Your task to perform on an android device: check android version Image 0: 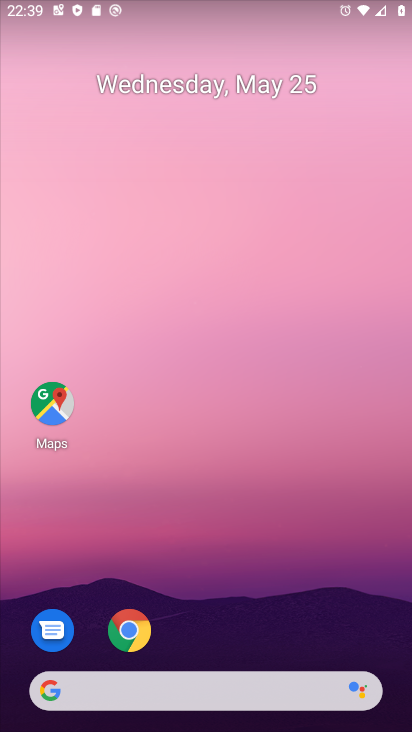
Step 0: drag from (201, 511) to (214, 172)
Your task to perform on an android device: check android version Image 1: 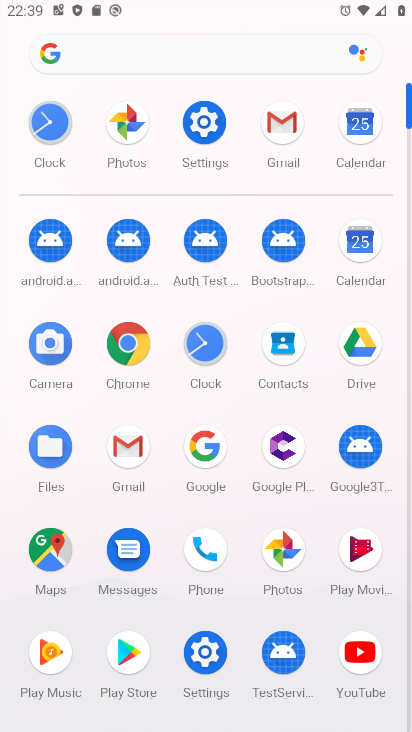
Step 1: click (195, 115)
Your task to perform on an android device: check android version Image 2: 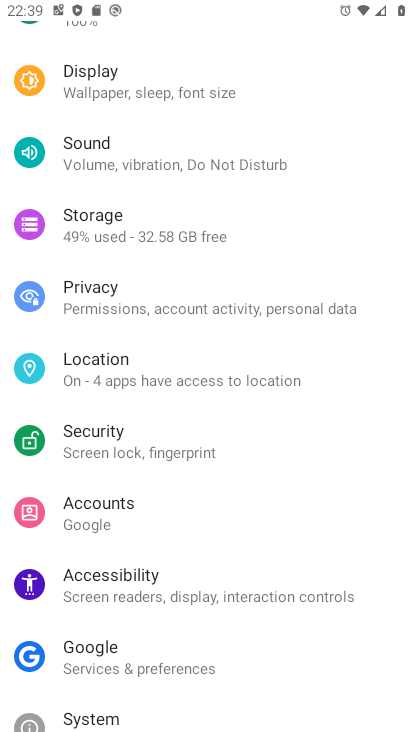
Step 2: drag from (196, 631) to (227, 255)
Your task to perform on an android device: check android version Image 3: 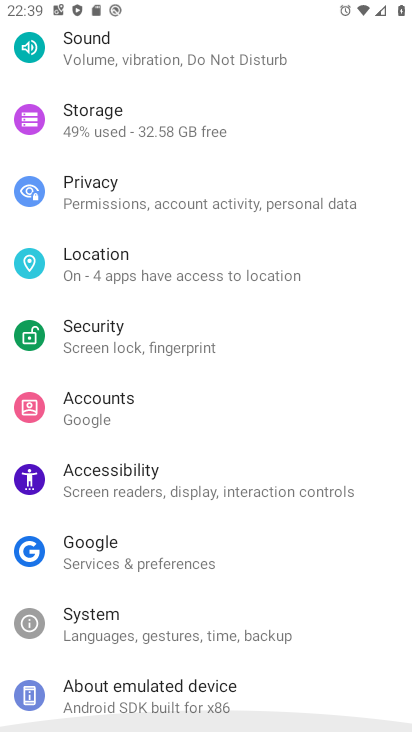
Step 3: drag from (223, 721) to (223, 263)
Your task to perform on an android device: check android version Image 4: 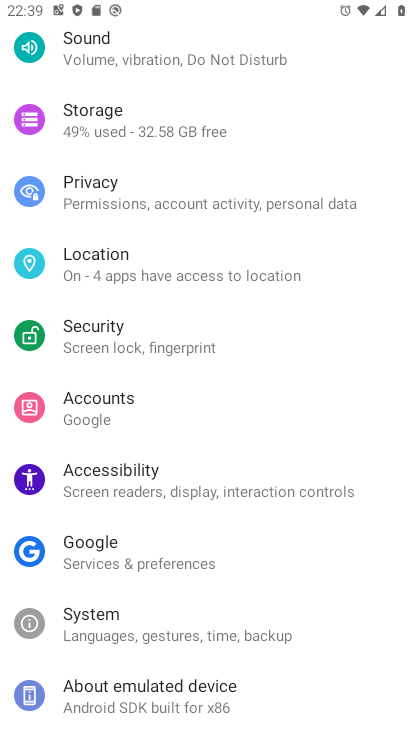
Step 4: click (192, 676)
Your task to perform on an android device: check android version Image 5: 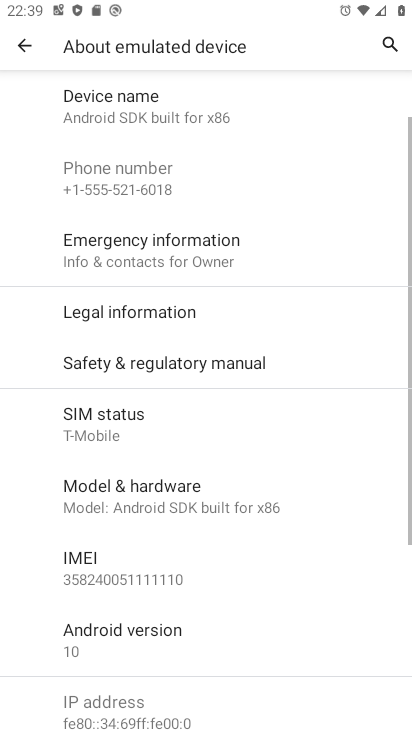
Step 5: click (200, 637)
Your task to perform on an android device: check android version Image 6: 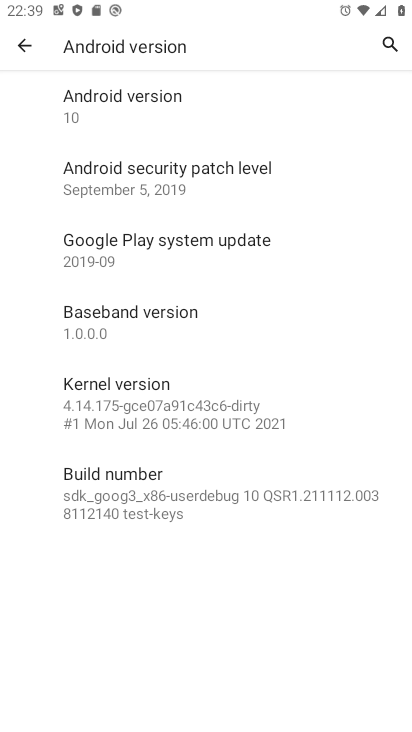
Step 6: click (148, 105)
Your task to perform on an android device: check android version Image 7: 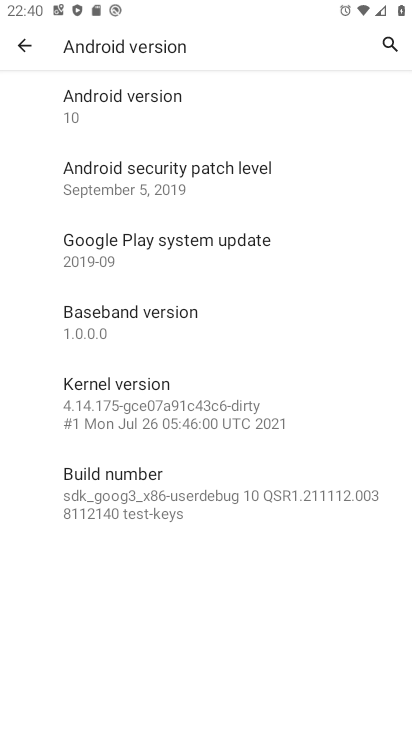
Step 7: click (148, 105)
Your task to perform on an android device: check android version Image 8: 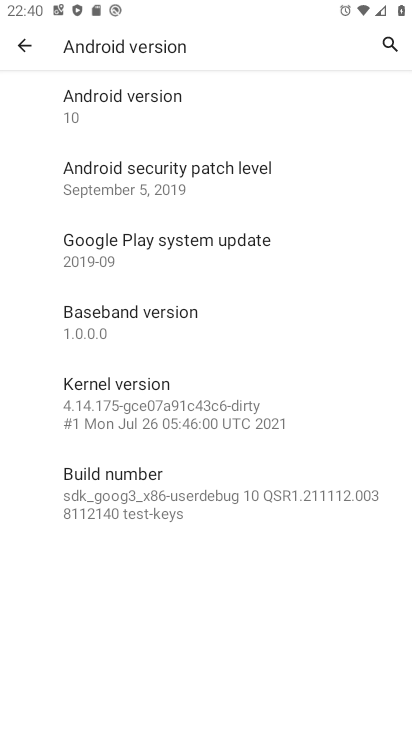
Step 8: click (148, 105)
Your task to perform on an android device: check android version Image 9: 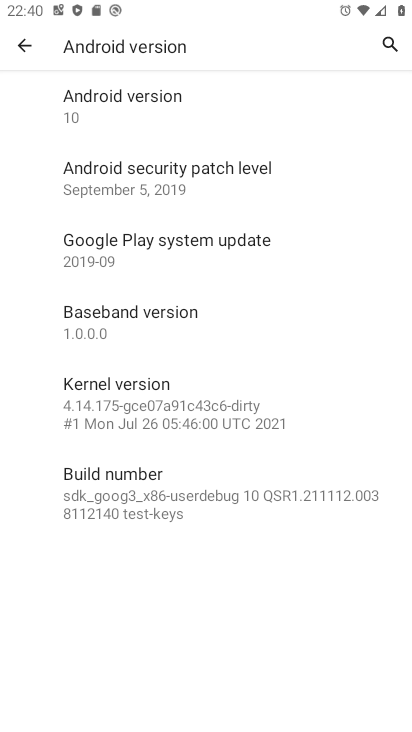
Step 9: task complete